Your task to perform on an android device: Open accessibility settings Image 0: 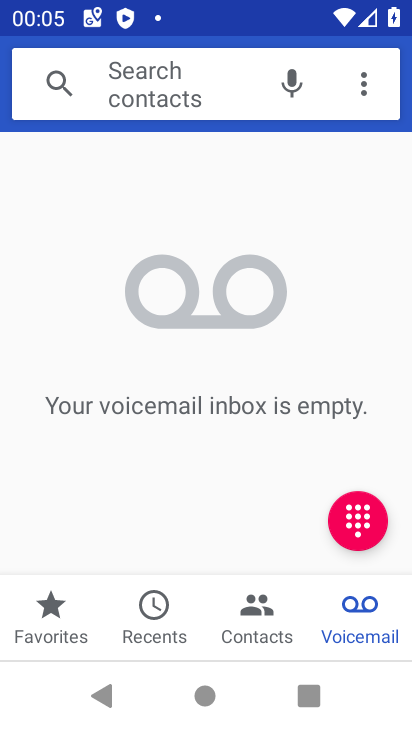
Step 0: press home button
Your task to perform on an android device: Open accessibility settings Image 1: 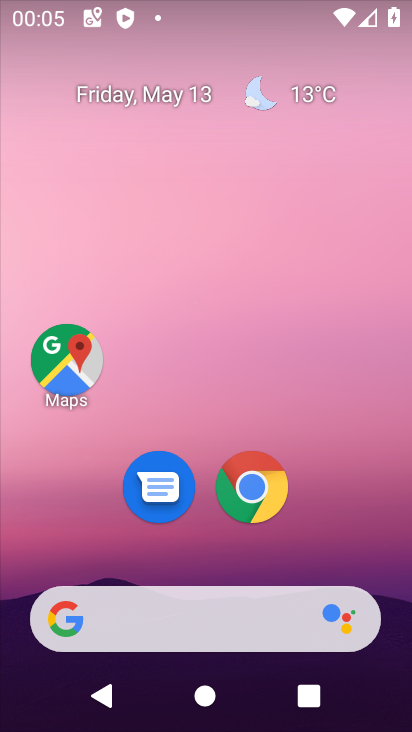
Step 1: drag from (203, 550) to (224, 447)
Your task to perform on an android device: Open accessibility settings Image 2: 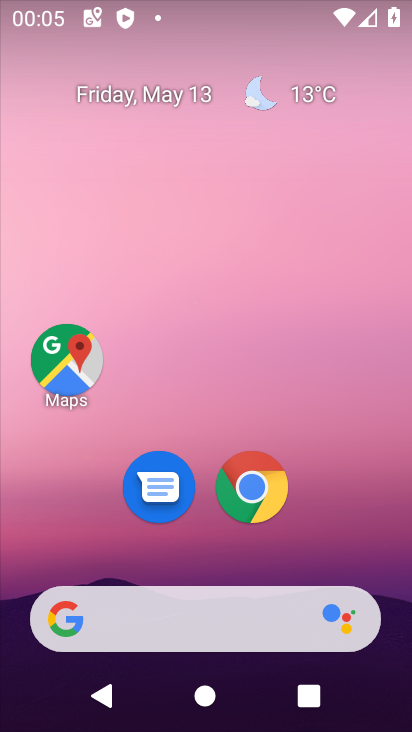
Step 2: drag from (220, 553) to (297, 114)
Your task to perform on an android device: Open accessibility settings Image 3: 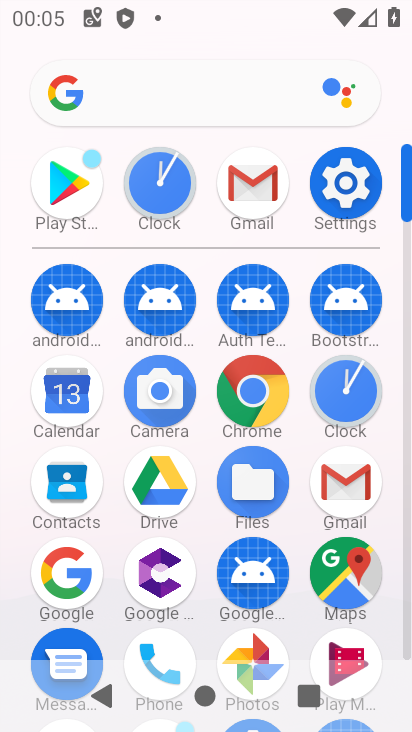
Step 3: click (340, 170)
Your task to perform on an android device: Open accessibility settings Image 4: 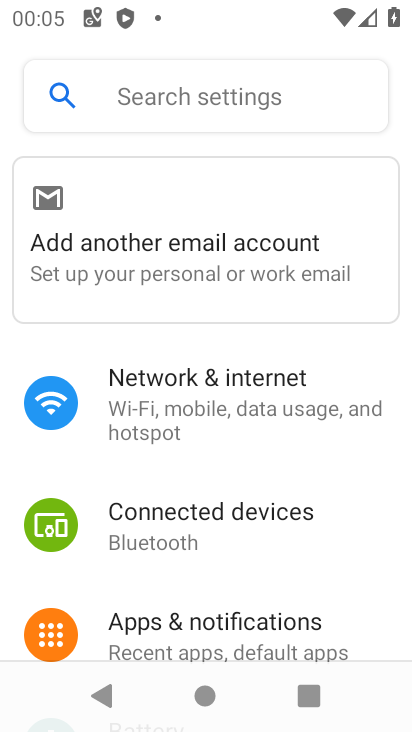
Step 4: drag from (112, 599) to (164, 418)
Your task to perform on an android device: Open accessibility settings Image 5: 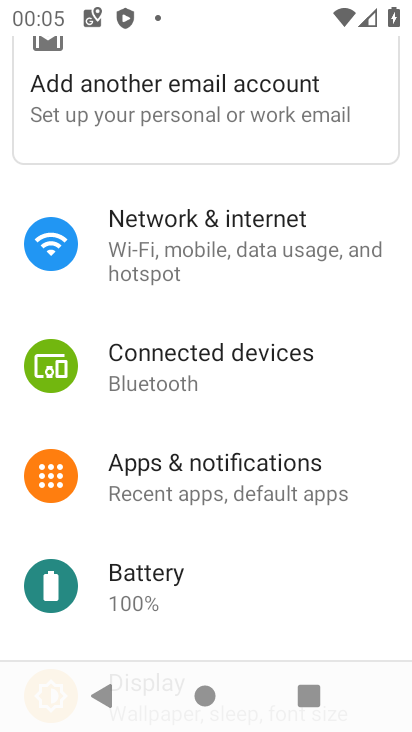
Step 5: drag from (175, 645) to (229, 336)
Your task to perform on an android device: Open accessibility settings Image 6: 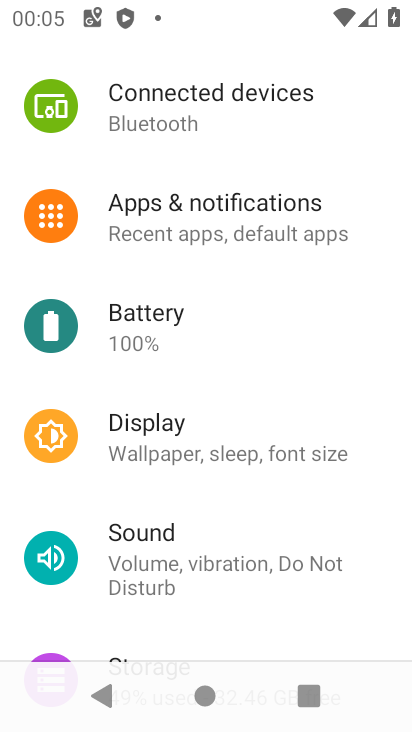
Step 6: drag from (125, 498) to (212, 95)
Your task to perform on an android device: Open accessibility settings Image 7: 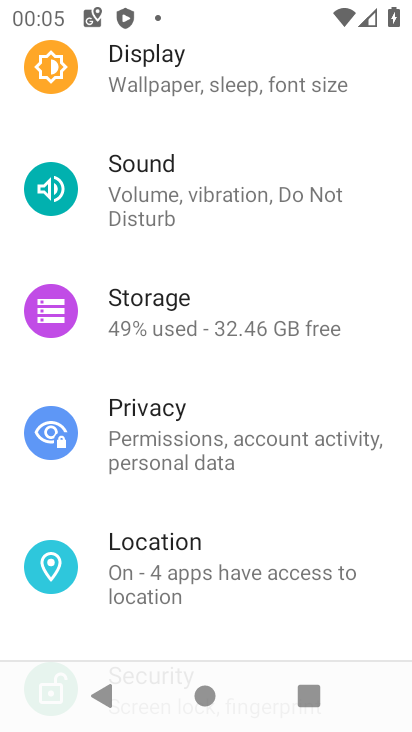
Step 7: drag from (144, 607) to (190, 348)
Your task to perform on an android device: Open accessibility settings Image 8: 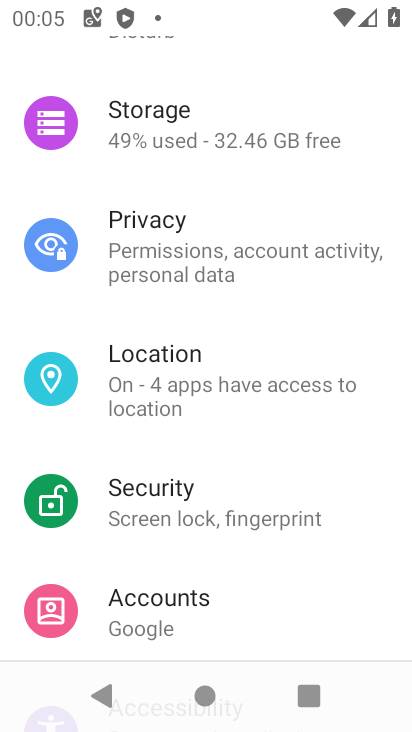
Step 8: drag from (167, 570) to (244, 169)
Your task to perform on an android device: Open accessibility settings Image 9: 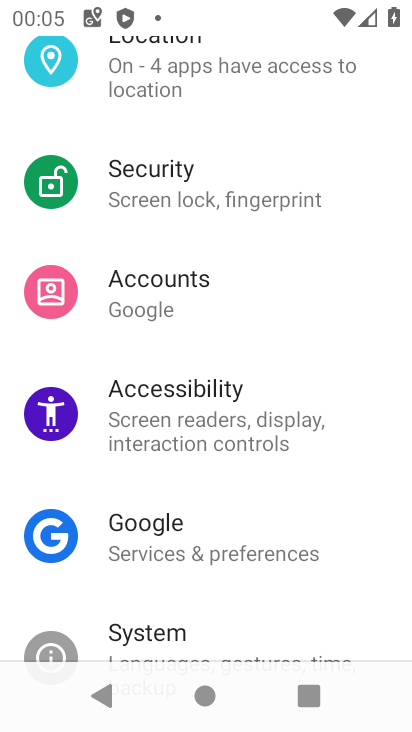
Step 9: click (216, 417)
Your task to perform on an android device: Open accessibility settings Image 10: 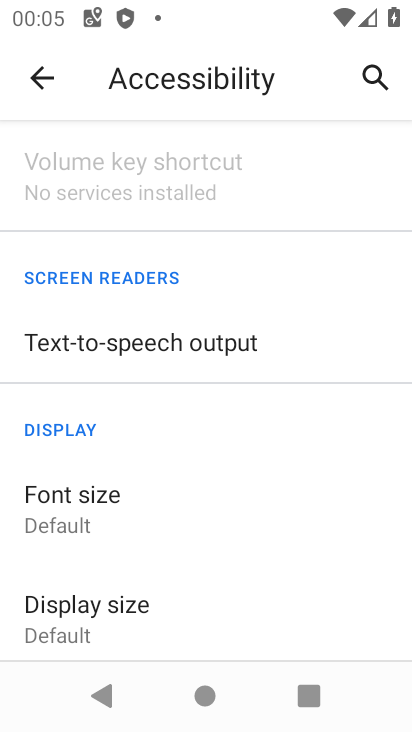
Step 10: task complete